Your task to perform on an android device: Show me popular videos on Youtube Image 0: 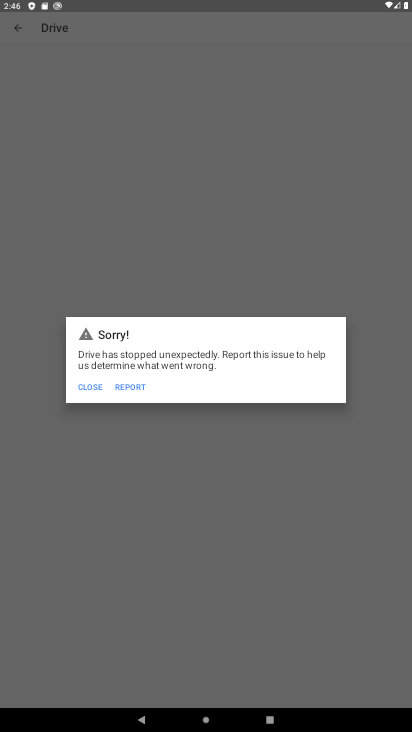
Step 0: press home button
Your task to perform on an android device: Show me popular videos on Youtube Image 1: 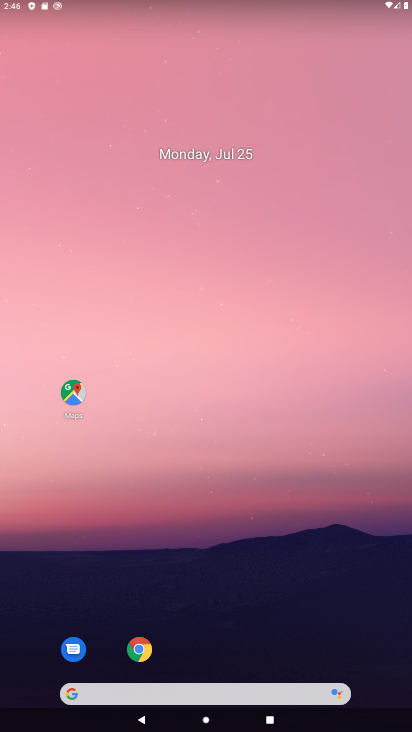
Step 1: drag from (190, 690) to (207, 56)
Your task to perform on an android device: Show me popular videos on Youtube Image 2: 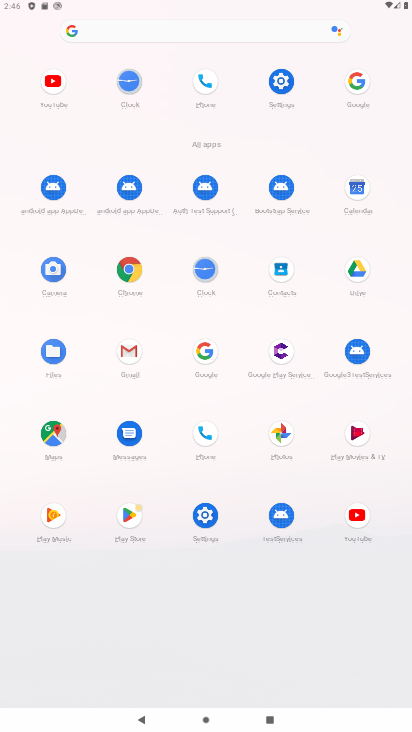
Step 2: click (360, 512)
Your task to perform on an android device: Show me popular videos on Youtube Image 3: 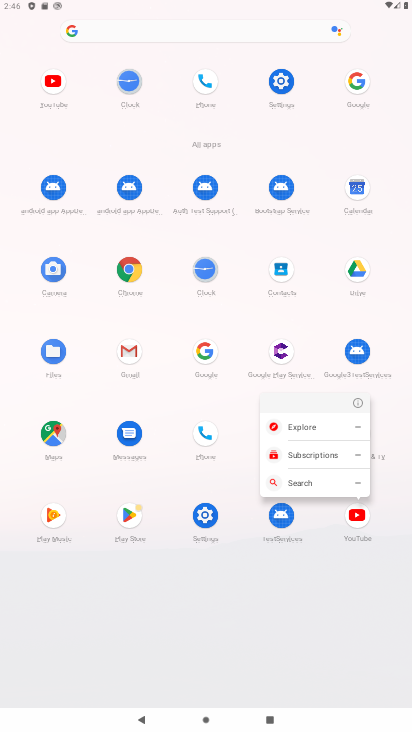
Step 3: click (358, 512)
Your task to perform on an android device: Show me popular videos on Youtube Image 4: 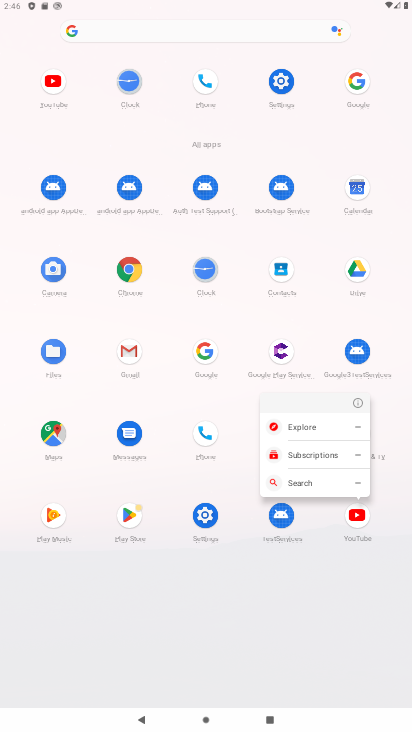
Step 4: click (358, 512)
Your task to perform on an android device: Show me popular videos on Youtube Image 5: 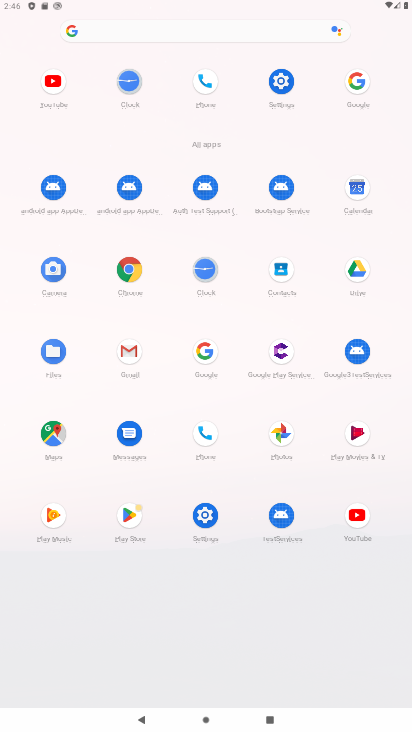
Step 5: click (358, 512)
Your task to perform on an android device: Show me popular videos on Youtube Image 6: 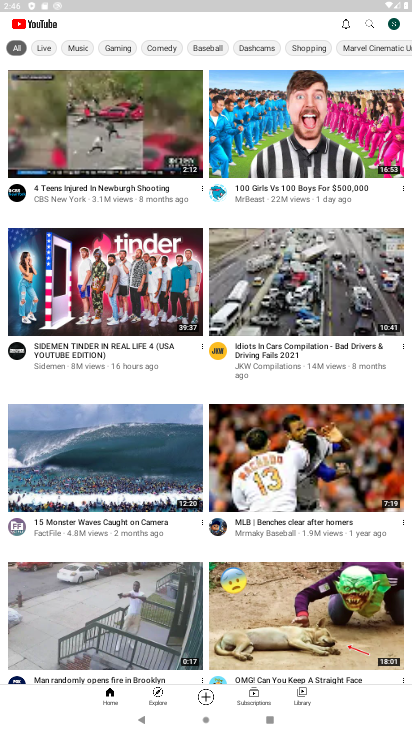
Step 6: task complete